Your task to perform on an android device: add a contact Image 0: 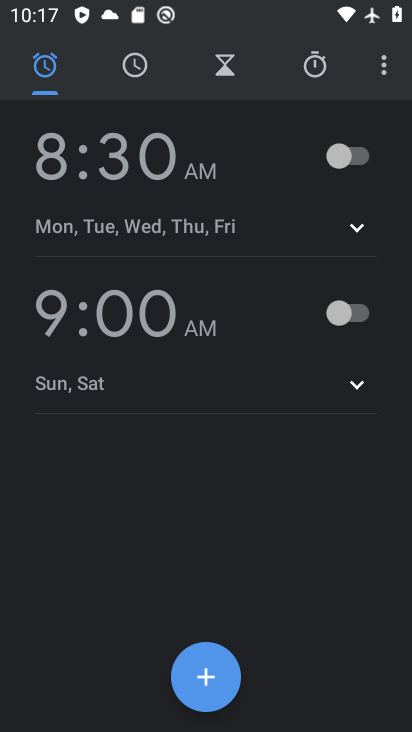
Step 0: press home button
Your task to perform on an android device: add a contact Image 1: 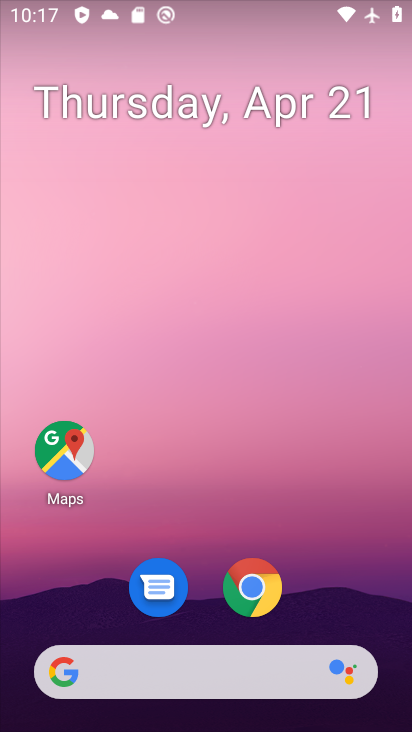
Step 1: drag from (340, 548) to (352, 40)
Your task to perform on an android device: add a contact Image 2: 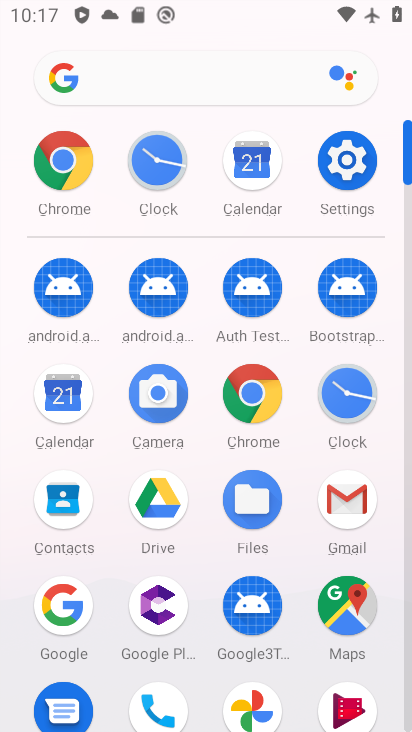
Step 2: click (55, 495)
Your task to perform on an android device: add a contact Image 3: 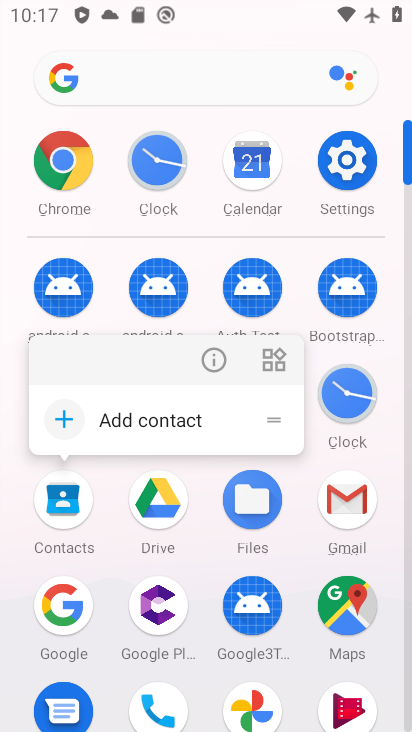
Step 3: click (55, 495)
Your task to perform on an android device: add a contact Image 4: 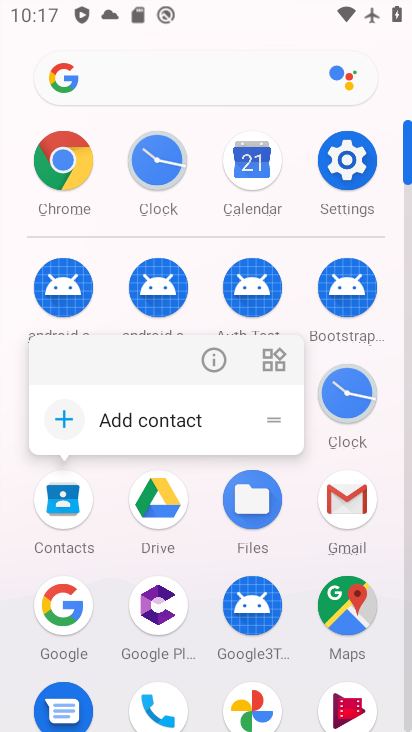
Step 4: click (145, 416)
Your task to perform on an android device: add a contact Image 5: 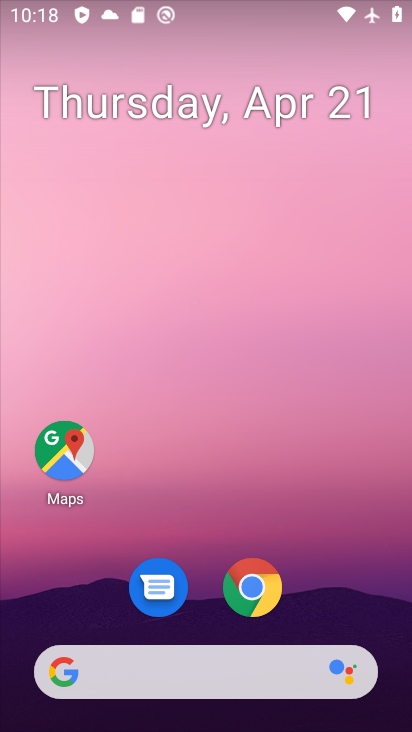
Step 5: drag from (330, 552) to (340, 114)
Your task to perform on an android device: add a contact Image 6: 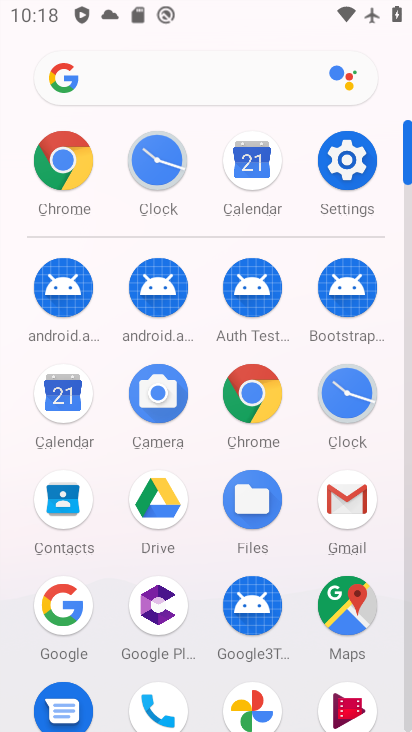
Step 6: click (75, 519)
Your task to perform on an android device: add a contact Image 7: 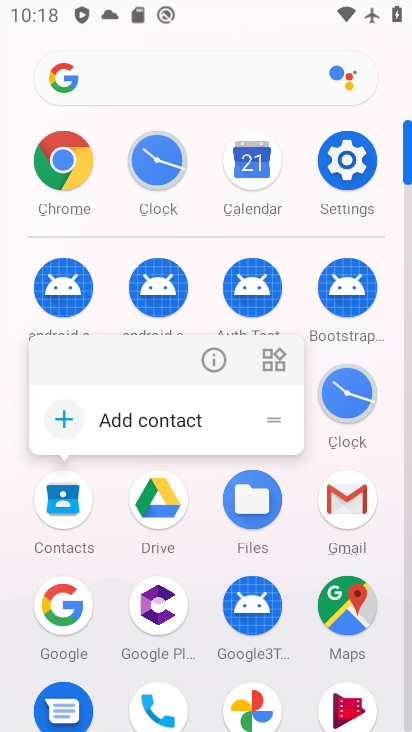
Step 7: click (76, 519)
Your task to perform on an android device: add a contact Image 8: 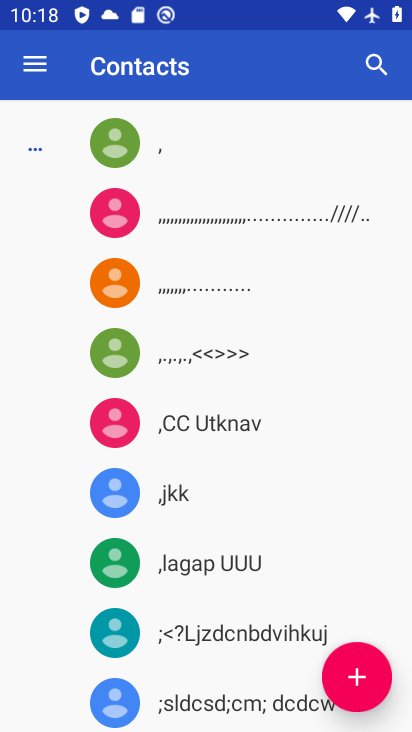
Step 8: click (354, 678)
Your task to perform on an android device: add a contact Image 9: 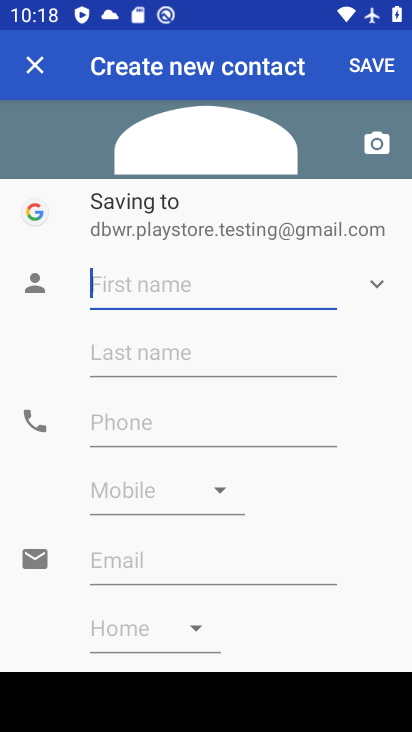
Step 9: type "luv"
Your task to perform on an android device: add a contact Image 10: 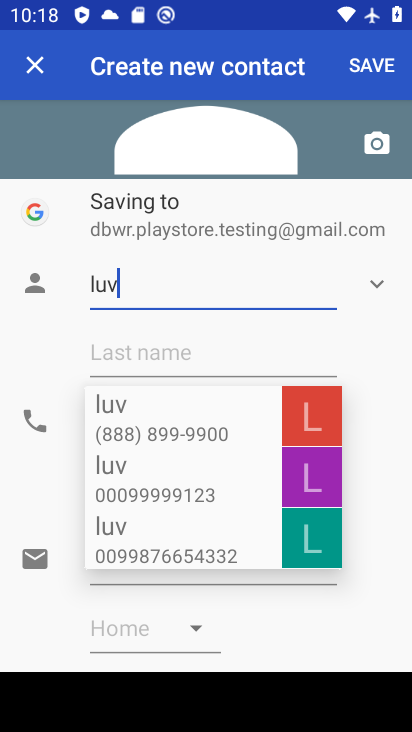
Step 10: click (383, 392)
Your task to perform on an android device: add a contact Image 11: 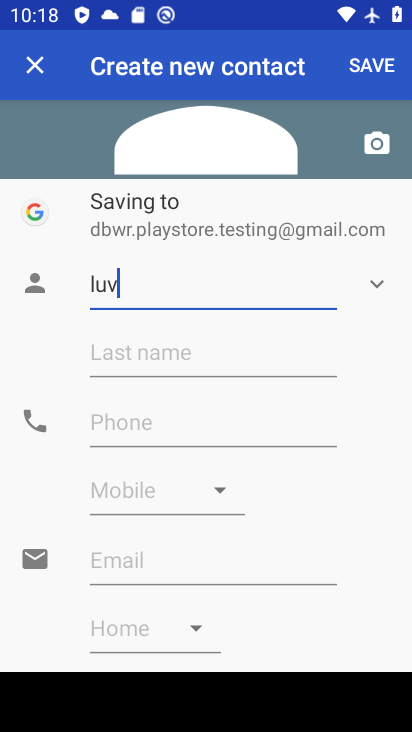
Step 11: click (222, 414)
Your task to perform on an android device: add a contact Image 12: 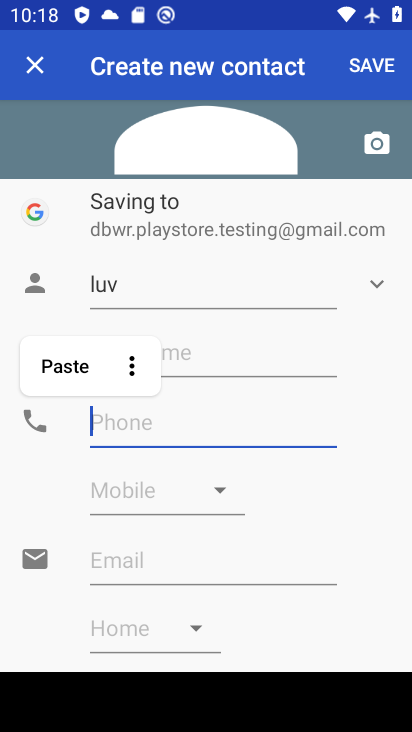
Step 12: type "123456"
Your task to perform on an android device: add a contact Image 13: 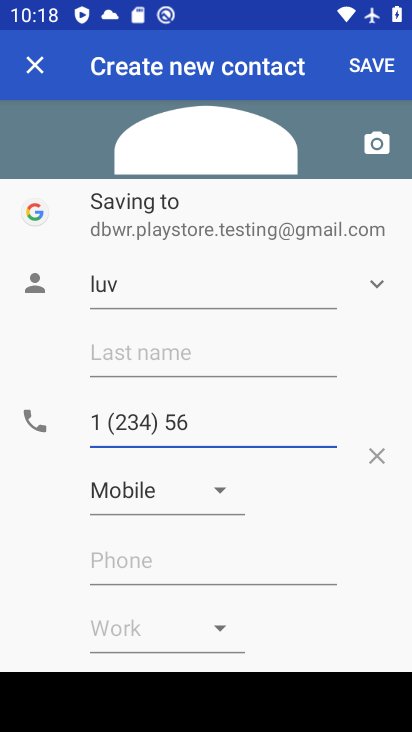
Step 13: click (375, 67)
Your task to perform on an android device: add a contact Image 14: 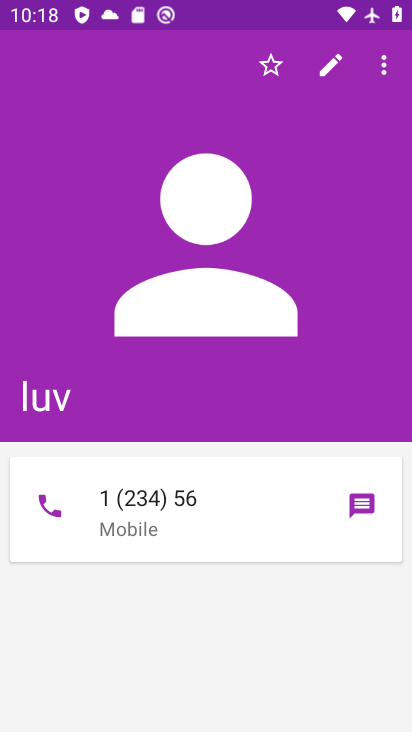
Step 14: task complete